Your task to perform on an android device: toggle translation in the chrome app Image 0: 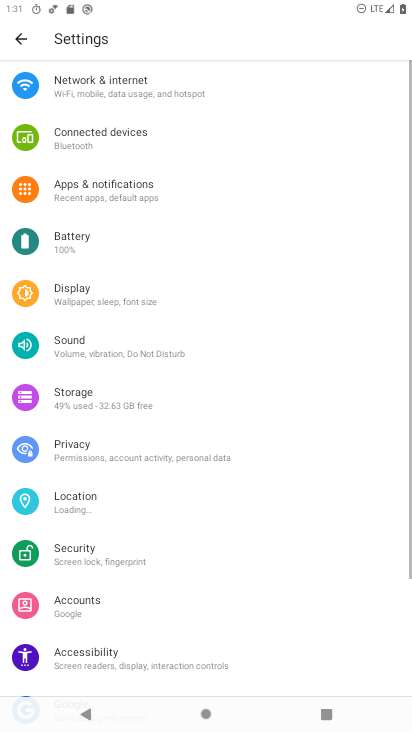
Step 0: press home button
Your task to perform on an android device: toggle translation in the chrome app Image 1: 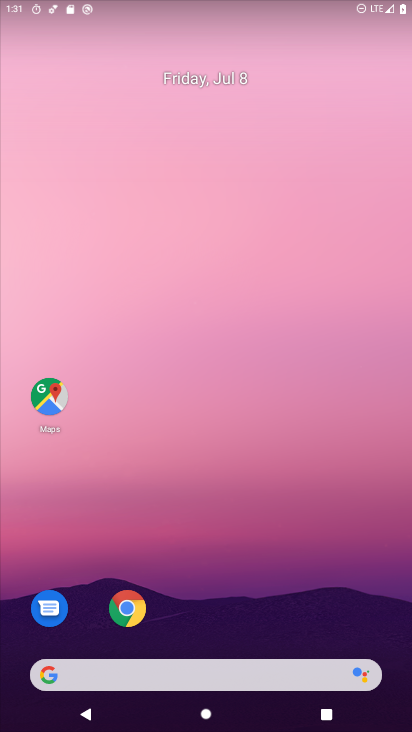
Step 1: click (132, 610)
Your task to perform on an android device: toggle translation in the chrome app Image 2: 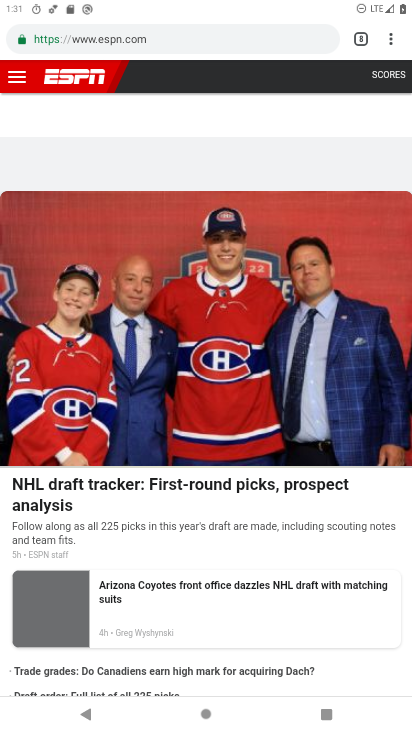
Step 2: click (392, 41)
Your task to perform on an android device: toggle translation in the chrome app Image 3: 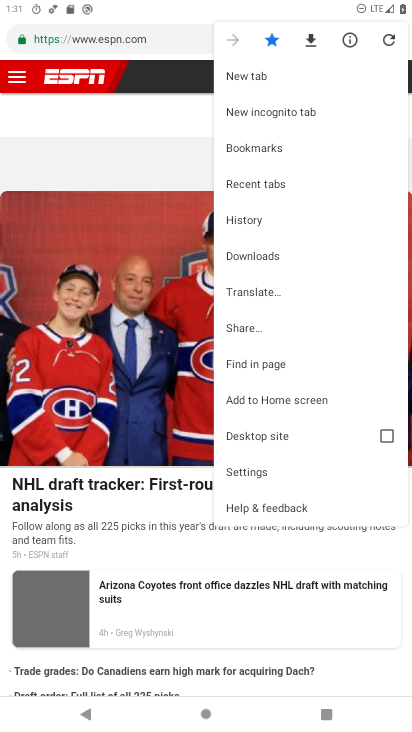
Step 3: click (246, 469)
Your task to perform on an android device: toggle translation in the chrome app Image 4: 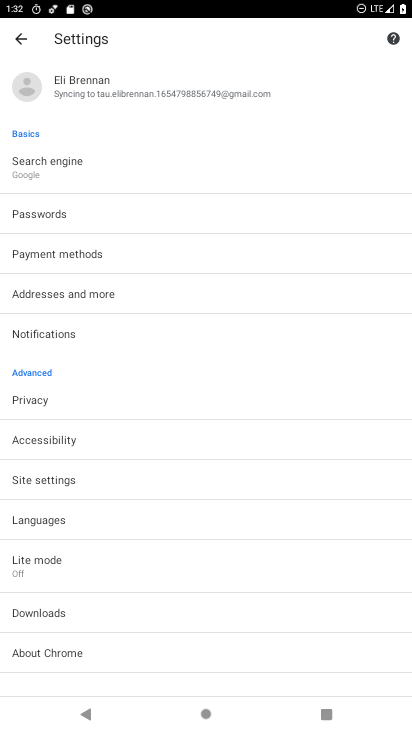
Step 4: click (50, 520)
Your task to perform on an android device: toggle translation in the chrome app Image 5: 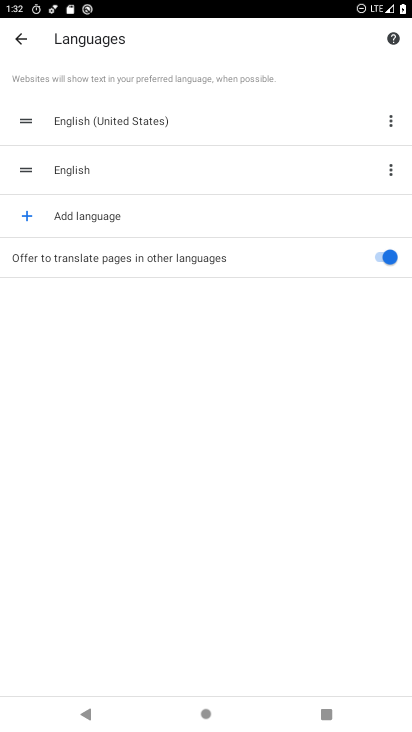
Step 5: click (390, 257)
Your task to perform on an android device: toggle translation in the chrome app Image 6: 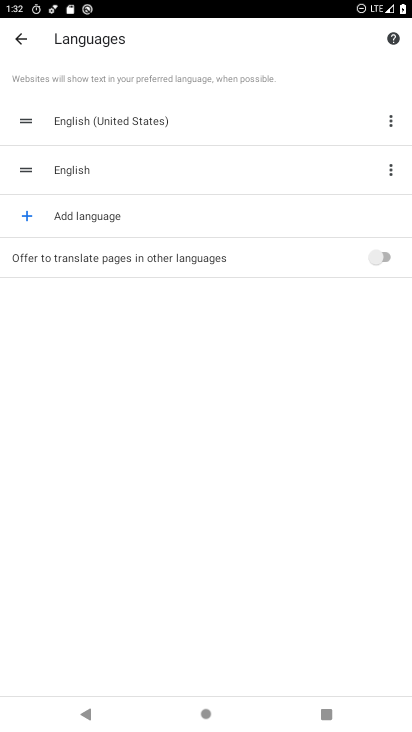
Step 6: task complete